Your task to perform on an android device: turn on improve location accuracy Image 0: 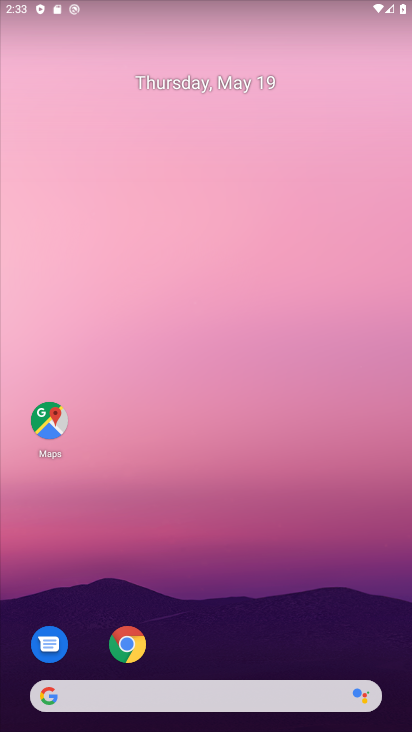
Step 0: drag from (224, 443) to (222, 205)
Your task to perform on an android device: turn on improve location accuracy Image 1: 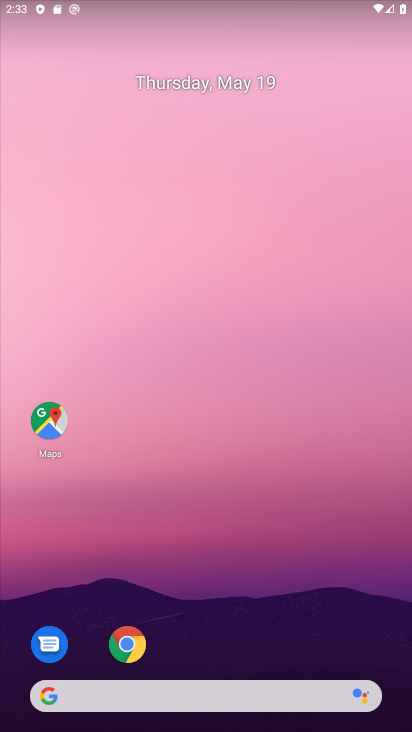
Step 1: drag from (200, 549) to (211, 267)
Your task to perform on an android device: turn on improve location accuracy Image 2: 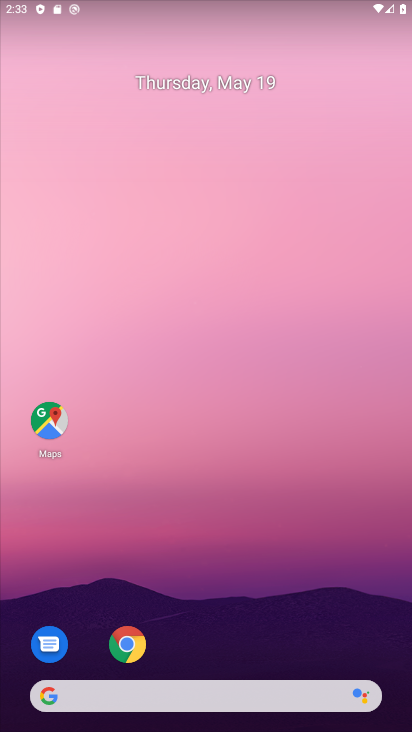
Step 2: drag from (256, 618) to (225, 186)
Your task to perform on an android device: turn on improve location accuracy Image 3: 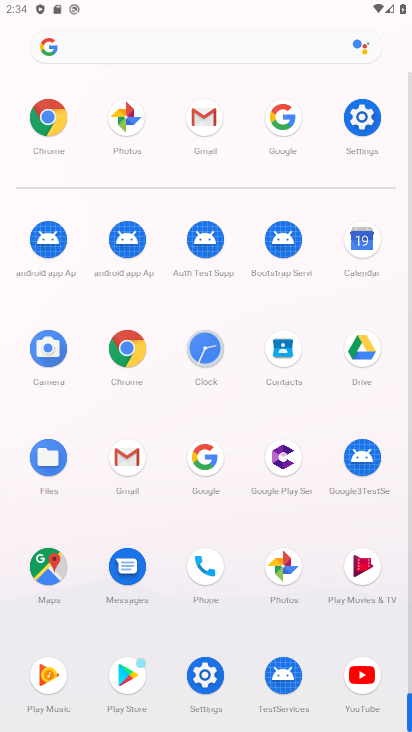
Step 3: click (355, 115)
Your task to perform on an android device: turn on improve location accuracy Image 4: 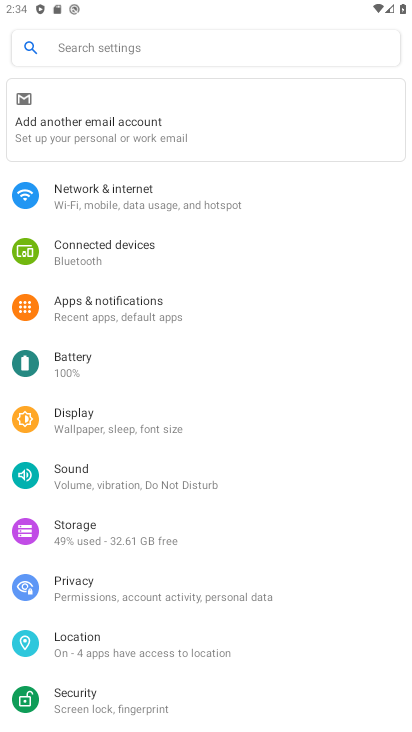
Step 4: click (128, 642)
Your task to perform on an android device: turn on improve location accuracy Image 5: 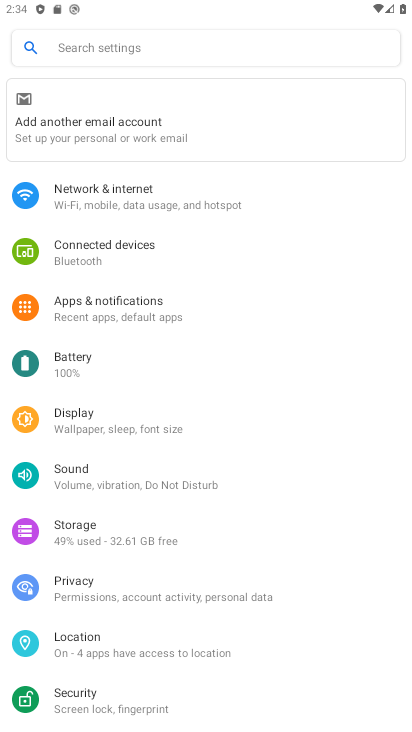
Step 5: click (134, 641)
Your task to perform on an android device: turn on improve location accuracy Image 6: 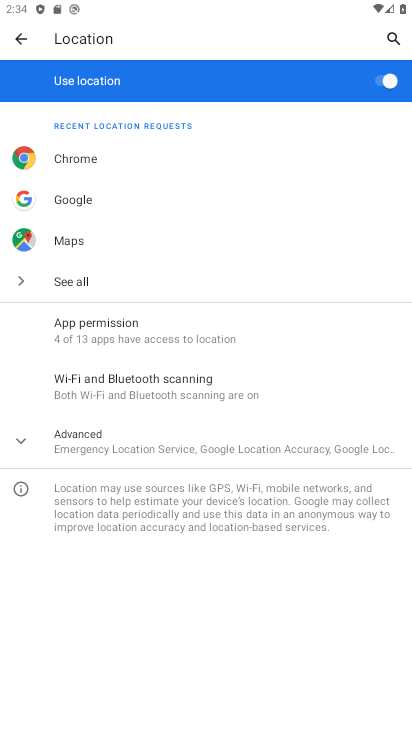
Step 6: click (132, 446)
Your task to perform on an android device: turn on improve location accuracy Image 7: 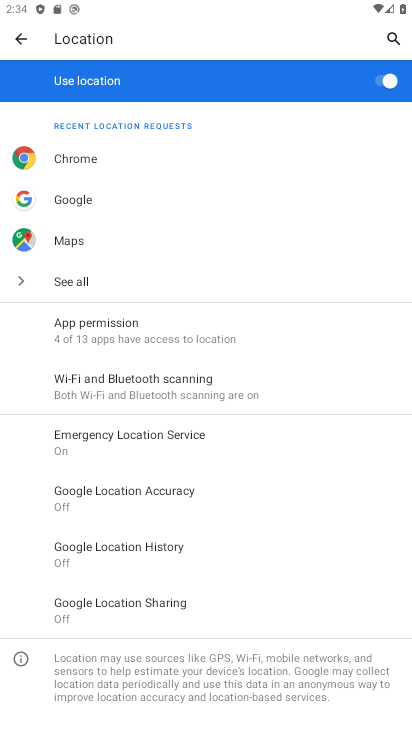
Step 7: click (121, 506)
Your task to perform on an android device: turn on improve location accuracy Image 8: 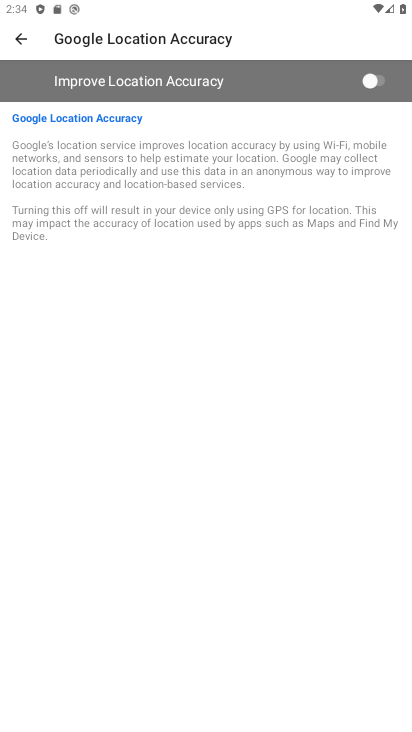
Step 8: click (369, 79)
Your task to perform on an android device: turn on improve location accuracy Image 9: 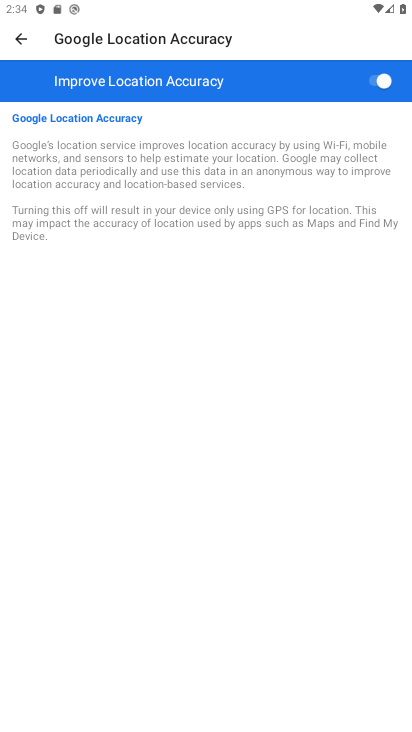
Step 9: task complete